Your task to perform on an android device: Show me popular games on the Play Store Image 0: 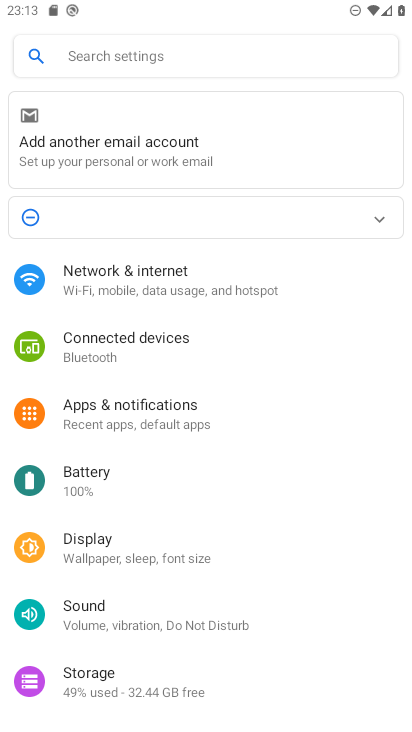
Step 0: press home button
Your task to perform on an android device: Show me popular games on the Play Store Image 1: 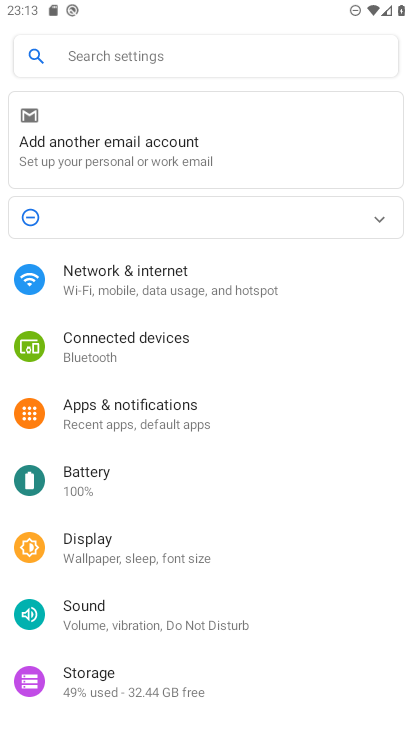
Step 1: press home button
Your task to perform on an android device: Show me popular games on the Play Store Image 2: 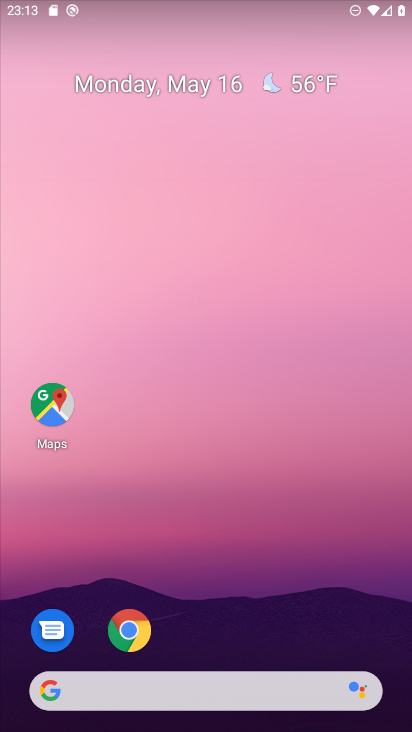
Step 2: drag from (218, 583) to (188, 62)
Your task to perform on an android device: Show me popular games on the Play Store Image 3: 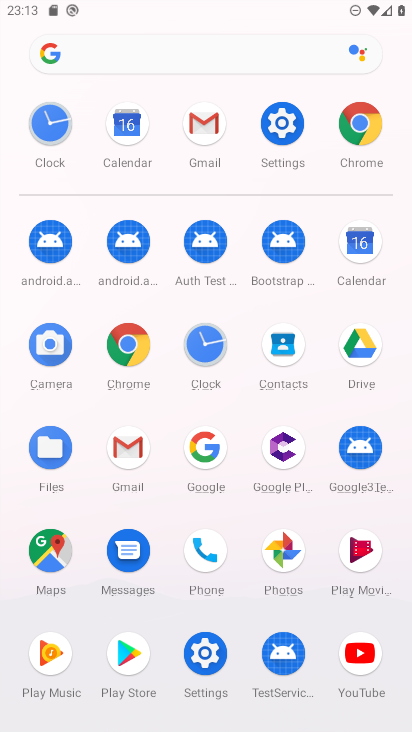
Step 3: click (128, 651)
Your task to perform on an android device: Show me popular games on the Play Store Image 4: 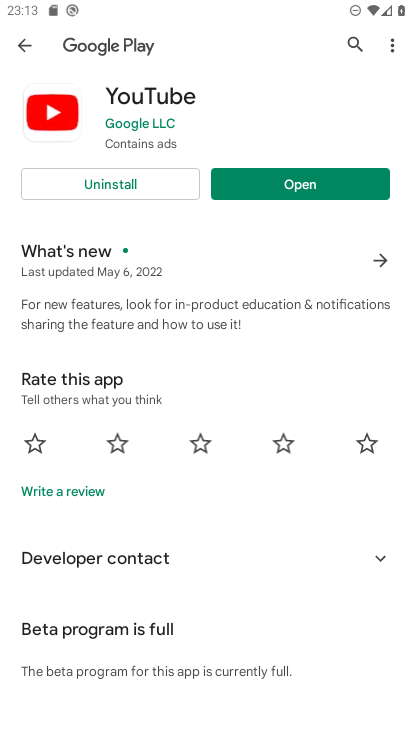
Step 4: click (28, 37)
Your task to perform on an android device: Show me popular games on the Play Store Image 5: 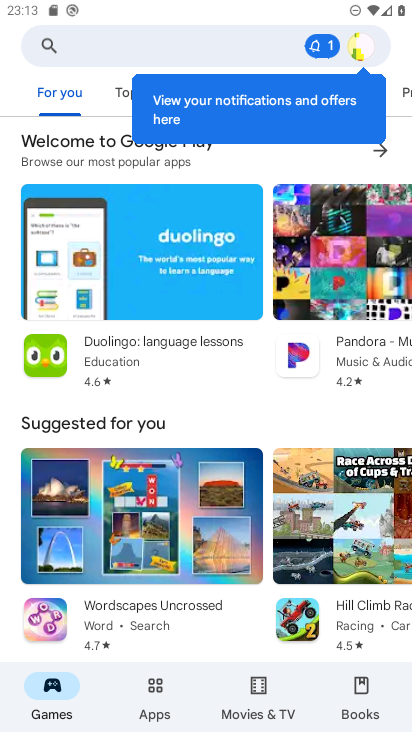
Step 5: drag from (279, 398) to (249, 110)
Your task to perform on an android device: Show me popular games on the Play Store Image 6: 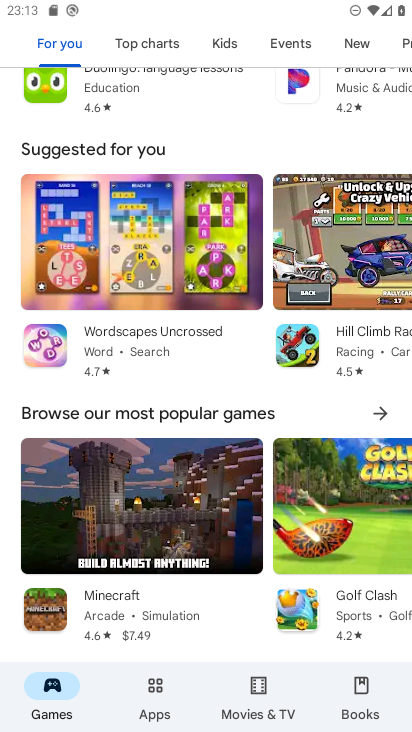
Step 6: click (377, 410)
Your task to perform on an android device: Show me popular games on the Play Store Image 7: 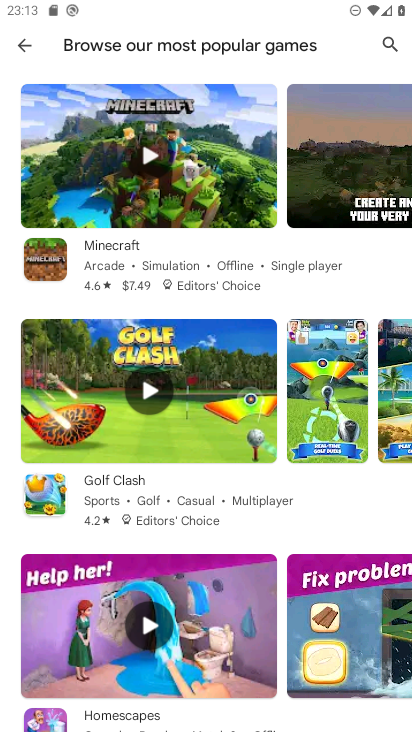
Step 7: task complete